Your task to perform on an android device: What is the speed of a rocket? Image 0: 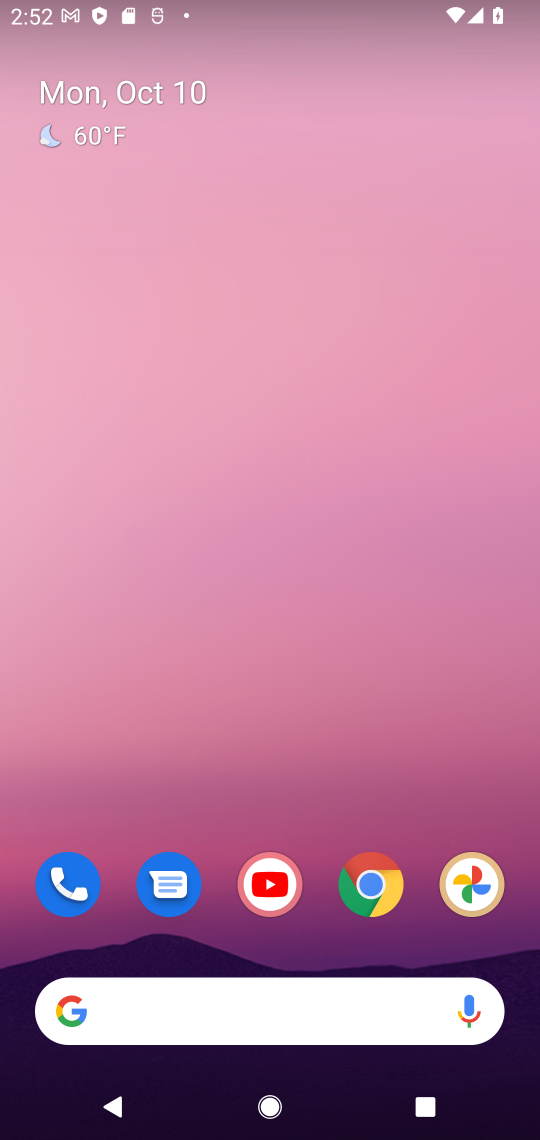
Step 0: click (379, 895)
Your task to perform on an android device: What is the speed of a rocket? Image 1: 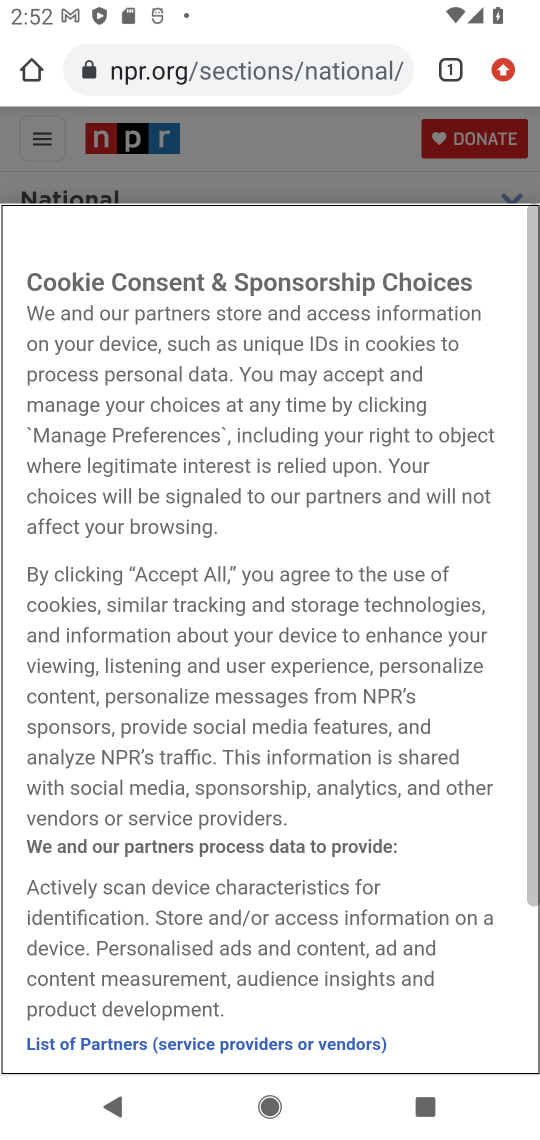
Step 1: click (272, 71)
Your task to perform on an android device: What is the speed of a rocket? Image 2: 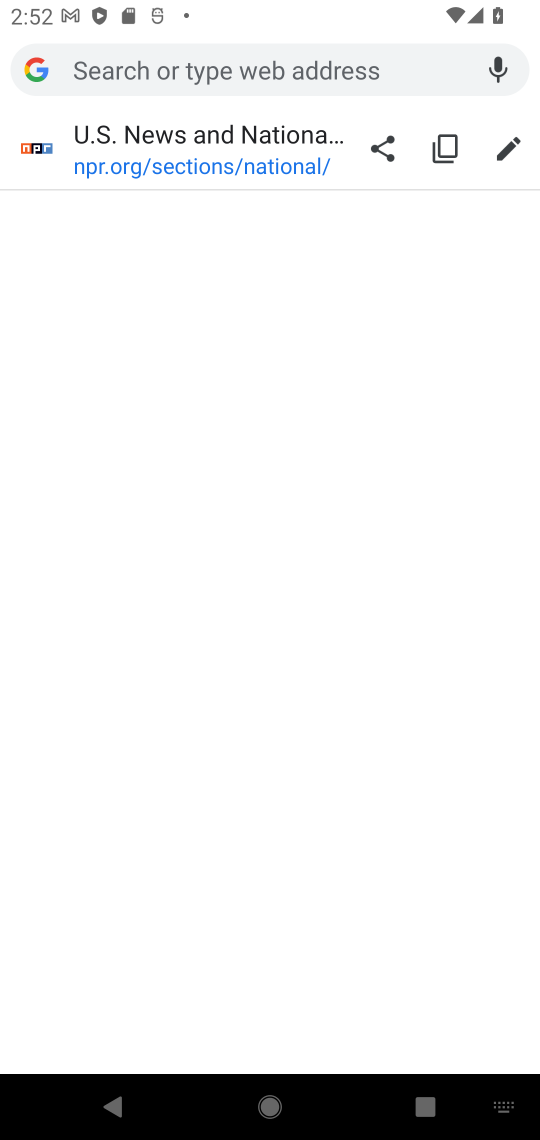
Step 2: click (337, 73)
Your task to perform on an android device: What is the speed of a rocket? Image 3: 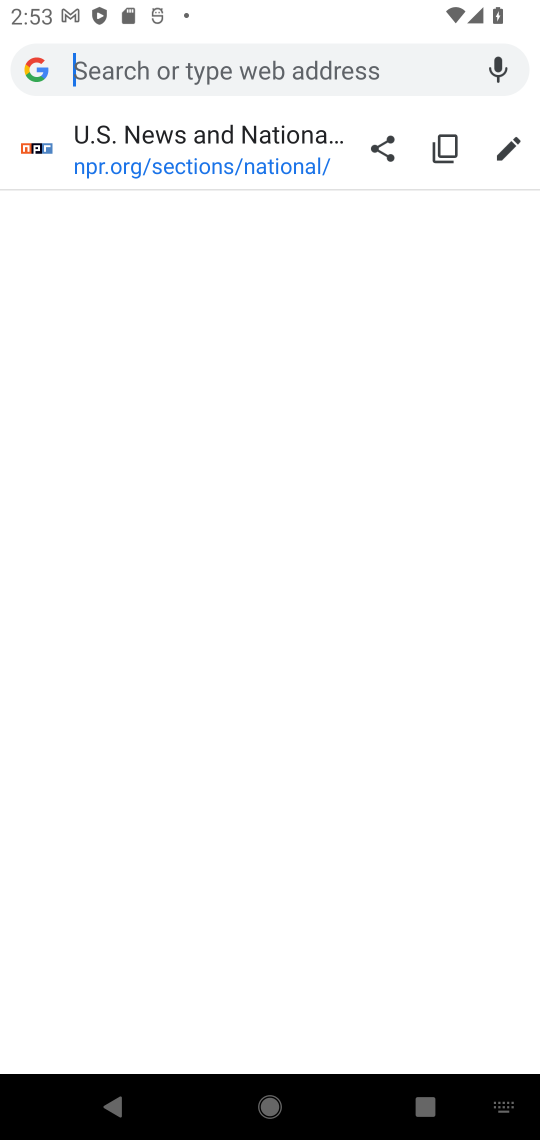
Step 3: type "what is the speed of rocket"
Your task to perform on an android device: What is the speed of a rocket? Image 4: 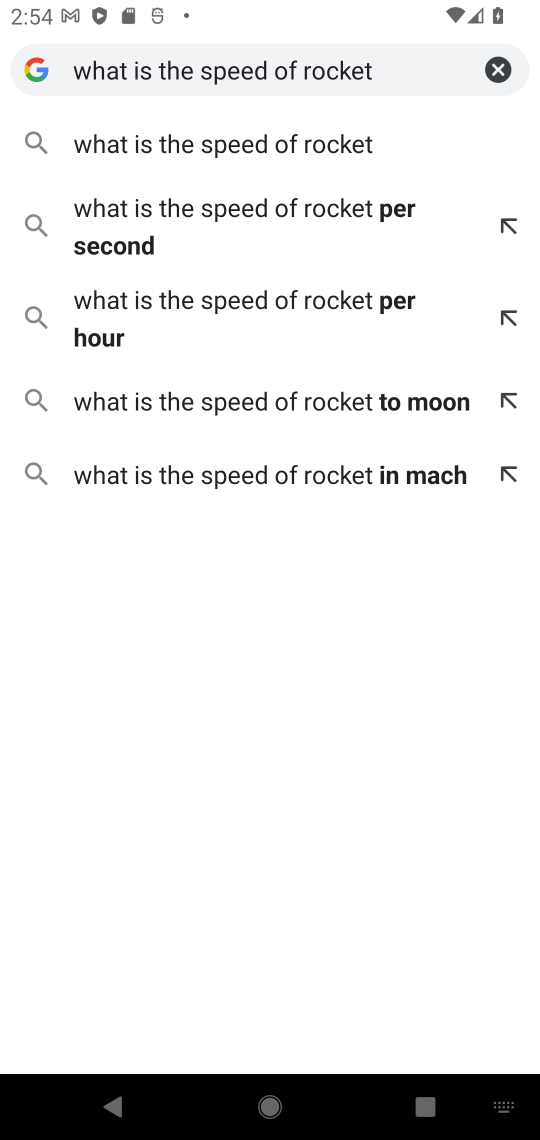
Step 4: click (227, 149)
Your task to perform on an android device: What is the speed of a rocket? Image 5: 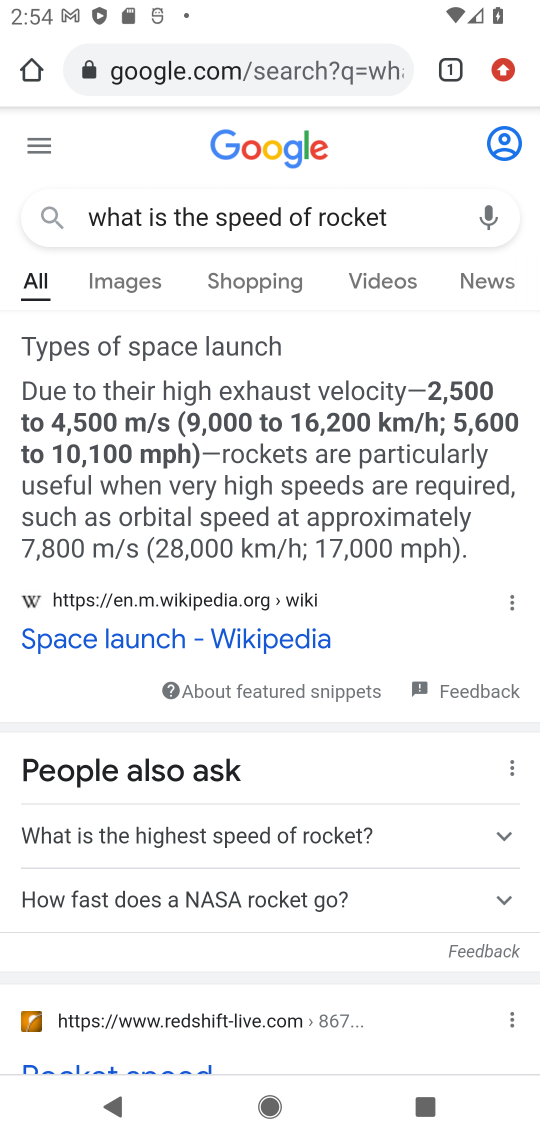
Step 5: task complete